Your task to perform on an android device: Install the Amazon app Image 0: 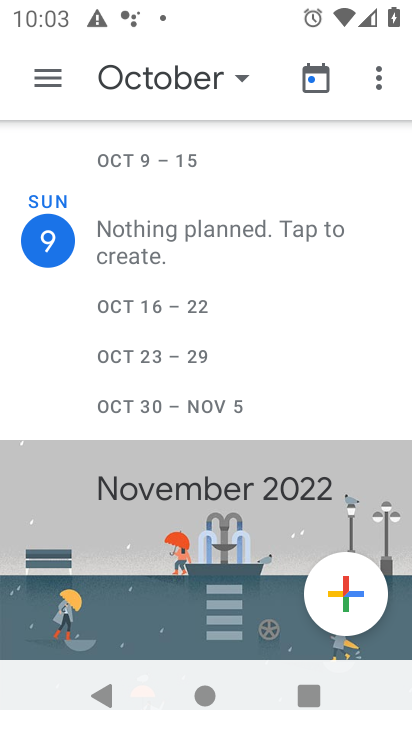
Step 0: press home button
Your task to perform on an android device: Install the Amazon app Image 1: 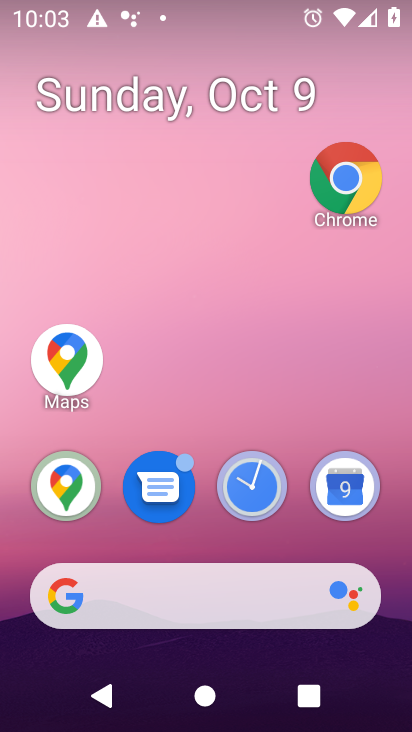
Step 1: drag from (308, 562) to (288, 235)
Your task to perform on an android device: Install the Amazon app Image 2: 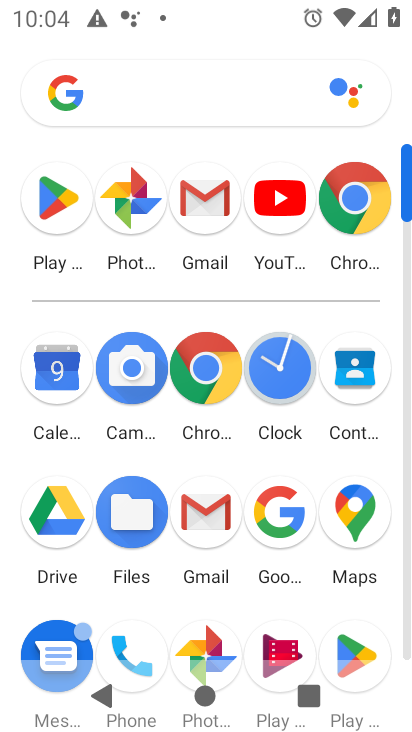
Step 2: drag from (261, 500) to (260, 299)
Your task to perform on an android device: Install the Amazon app Image 3: 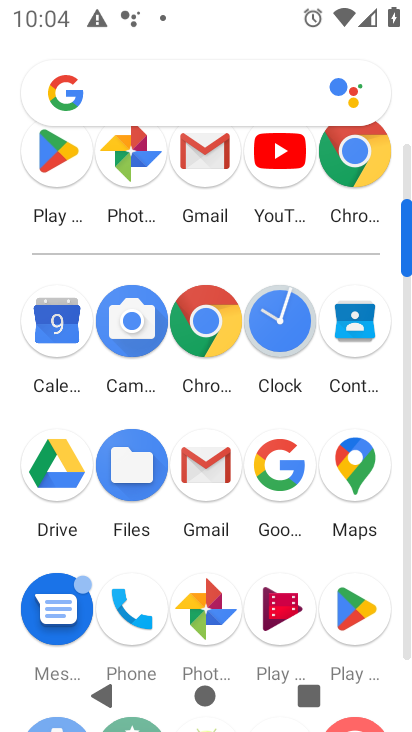
Step 3: drag from (266, 519) to (307, 194)
Your task to perform on an android device: Install the Amazon app Image 4: 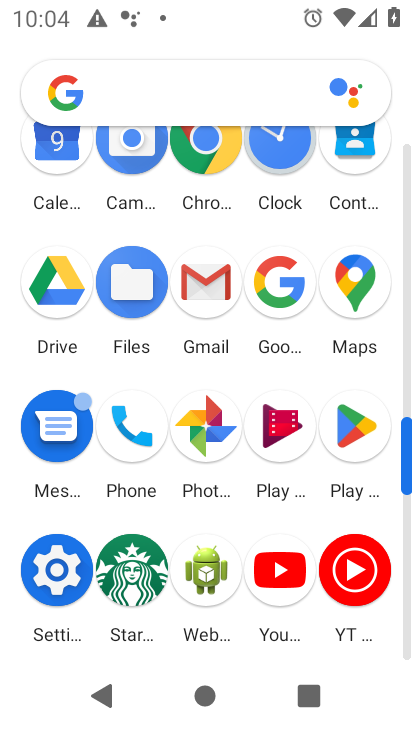
Step 4: click (354, 420)
Your task to perform on an android device: Install the Amazon app Image 5: 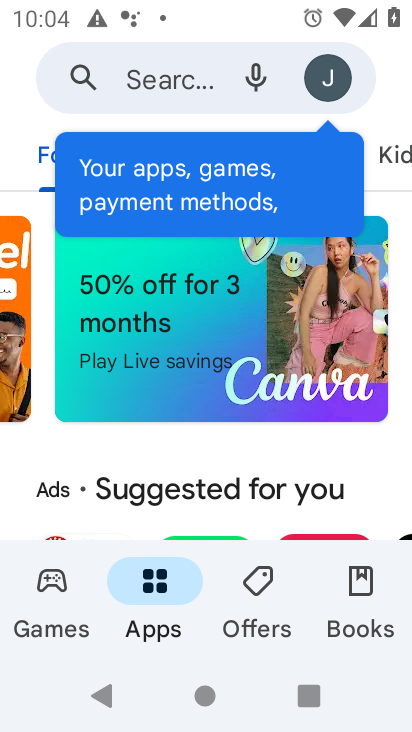
Step 5: click (139, 72)
Your task to perform on an android device: Install the Amazon app Image 6: 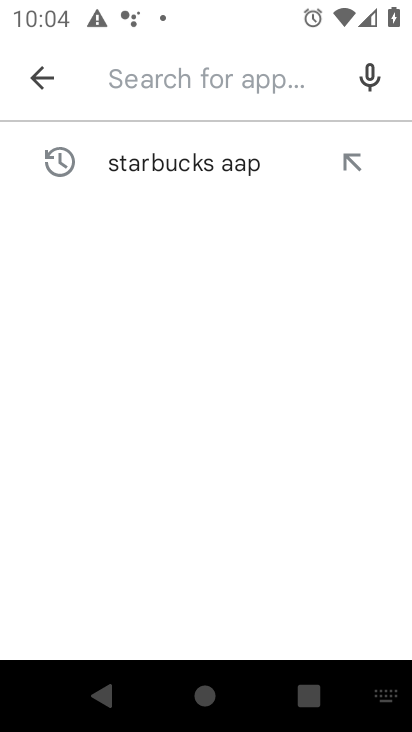
Step 6: type "amzon aap"
Your task to perform on an android device: Install the Amazon app Image 7: 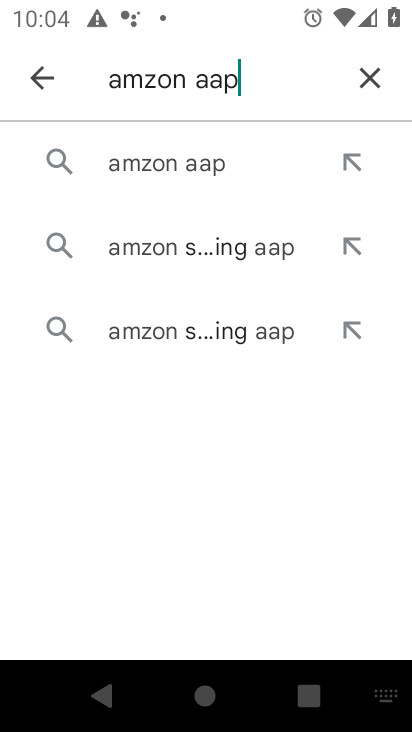
Step 7: click (189, 171)
Your task to perform on an android device: Install the Amazon app Image 8: 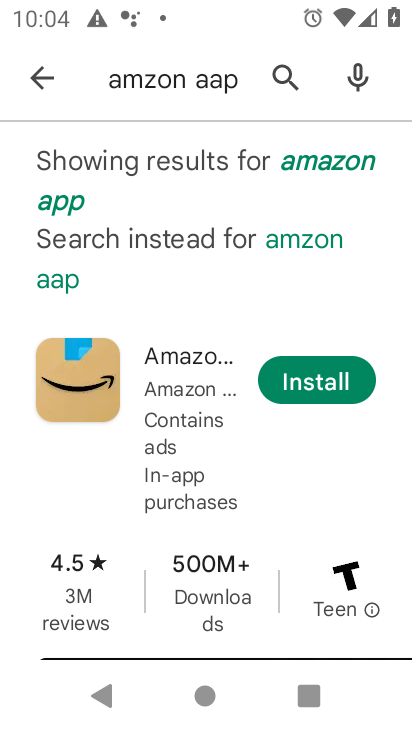
Step 8: click (341, 388)
Your task to perform on an android device: Install the Amazon app Image 9: 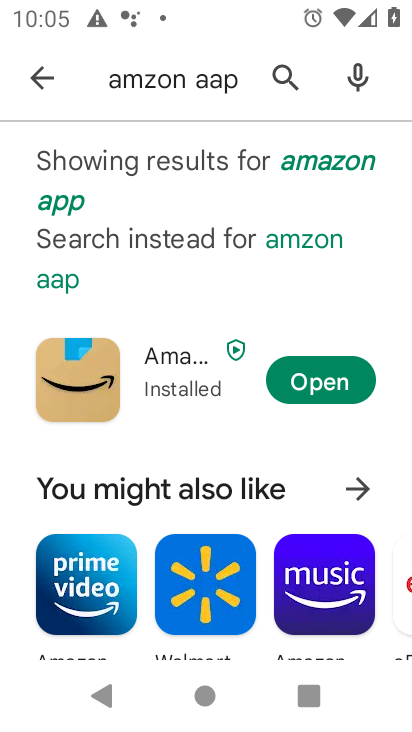
Step 9: task complete